Your task to perform on an android device: Open accessibility settings Image 0: 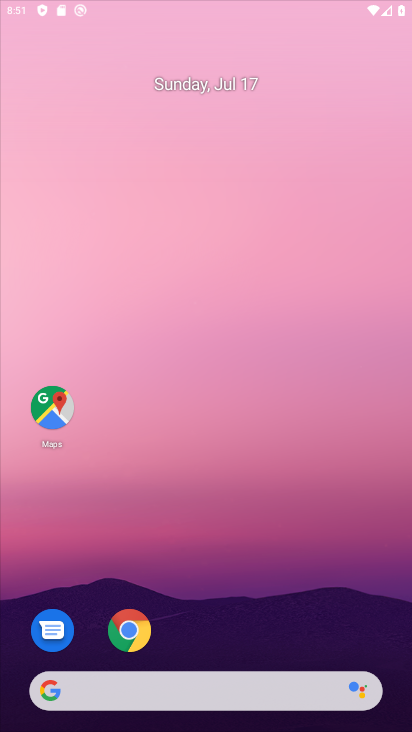
Step 0: click (260, 161)
Your task to perform on an android device: Open accessibility settings Image 1: 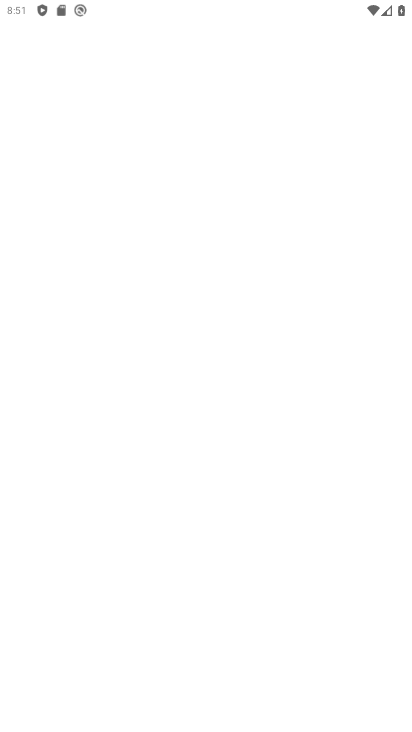
Step 1: press home button
Your task to perform on an android device: Open accessibility settings Image 2: 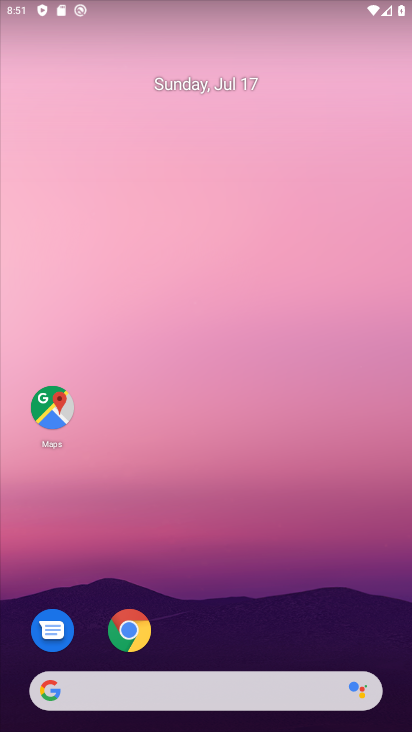
Step 2: drag from (191, 609) to (310, 48)
Your task to perform on an android device: Open accessibility settings Image 3: 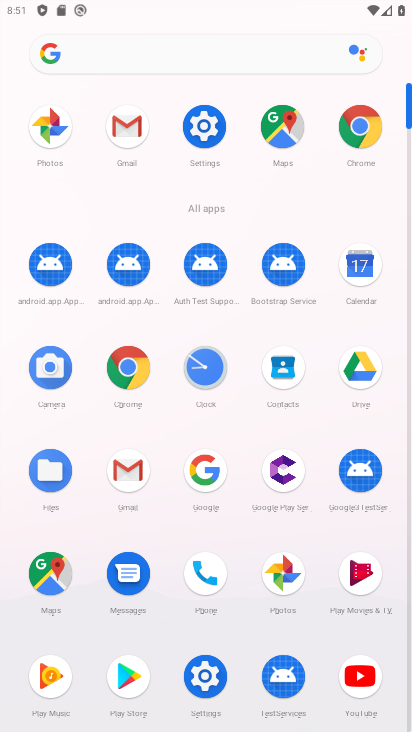
Step 3: click (214, 693)
Your task to perform on an android device: Open accessibility settings Image 4: 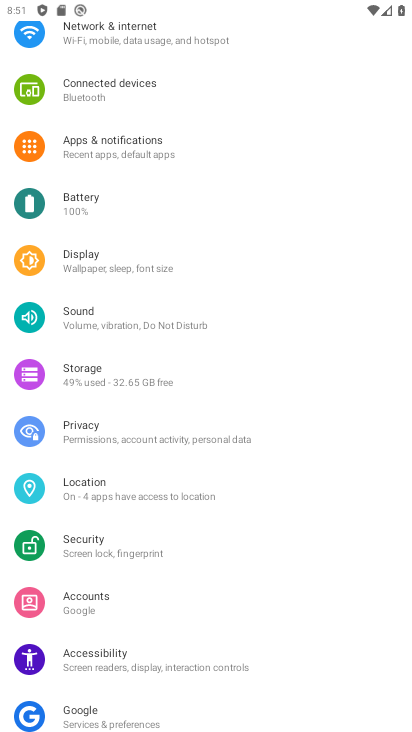
Step 4: click (133, 669)
Your task to perform on an android device: Open accessibility settings Image 5: 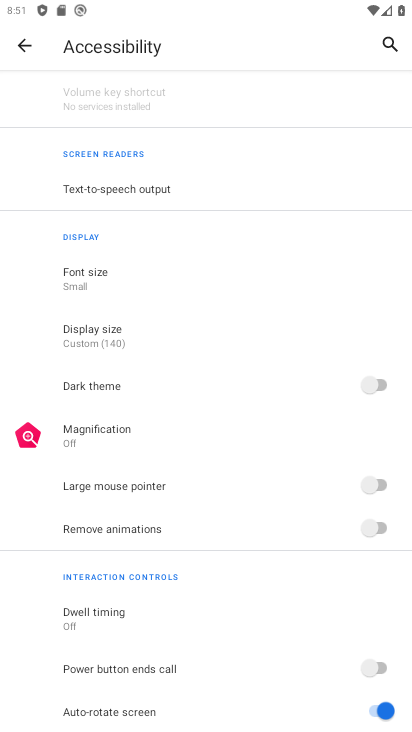
Step 5: task complete